Your task to perform on an android device: turn off wifi Image 0: 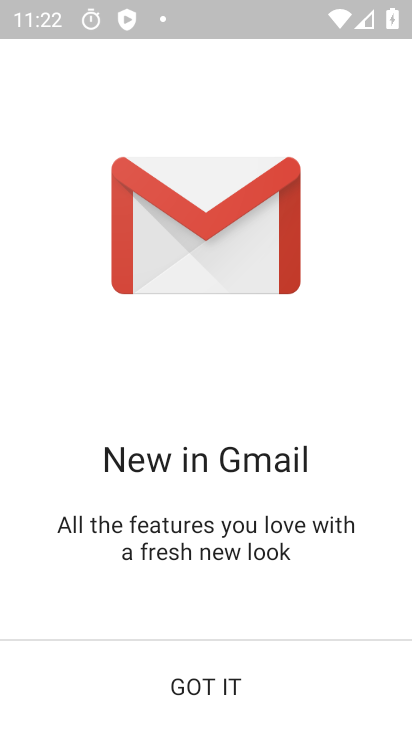
Step 0: press home button
Your task to perform on an android device: turn off wifi Image 1: 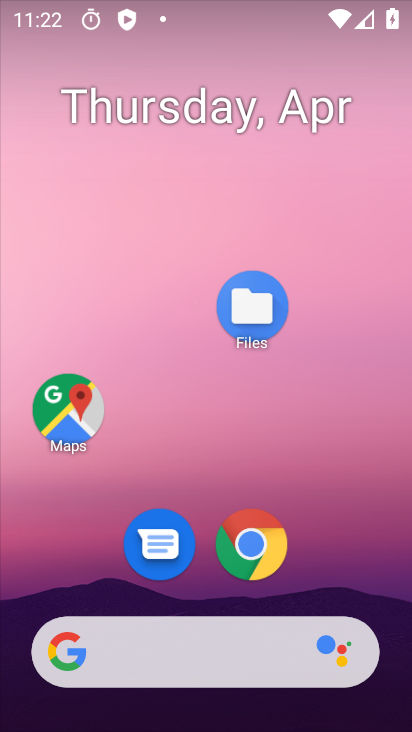
Step 1: drag from (280, 12) to (306, 424)
Your task to perform on an android device: turn off wifi Image 2: 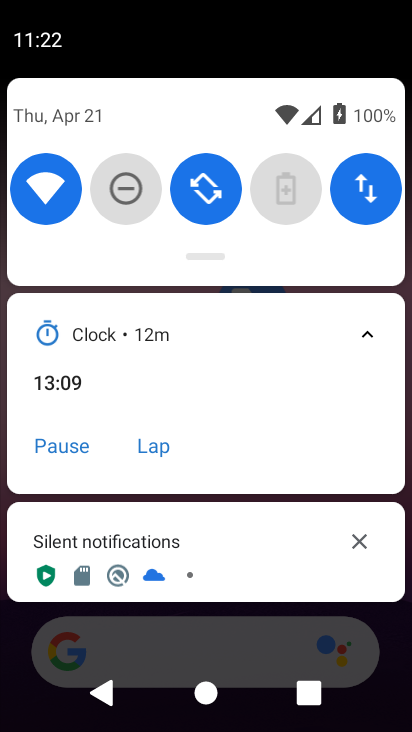
Step 2: click (51, 203)
Your task to perform on an android device: turn off wifi Image 3: 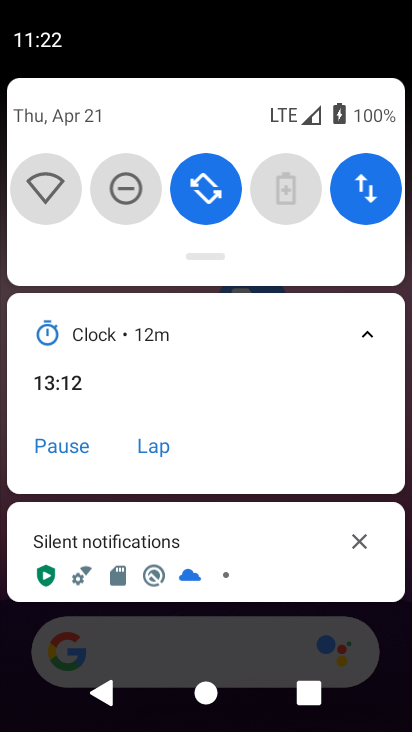
Step 3: task complete